Your task to perform on an android device: What's the weather going to be this weekend? Image 0: 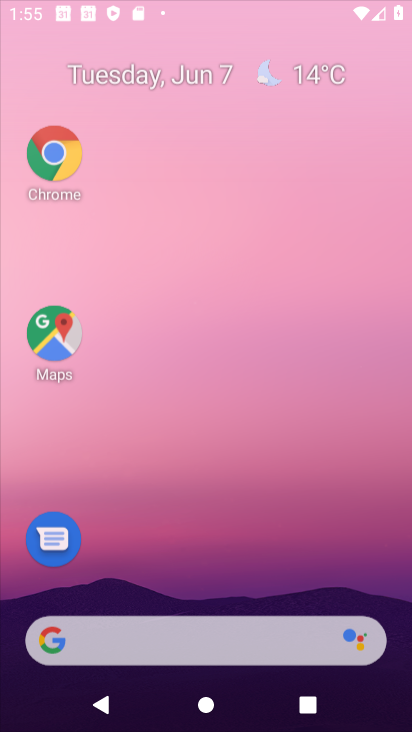
Step 0: click (366, 132)
Your task to perform on an android device: What's the weather going to be this weekend? Image 1: 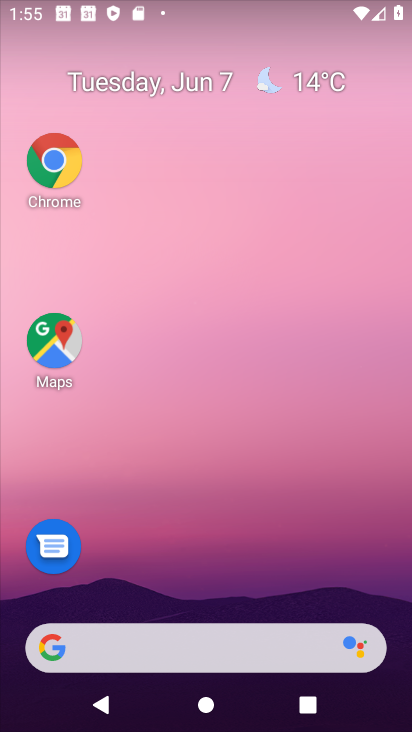
Step 1: drag from (201, 559) to (217, 190)
Your task to perform on an android device: What's the weather going to be this weekend? Image 2: 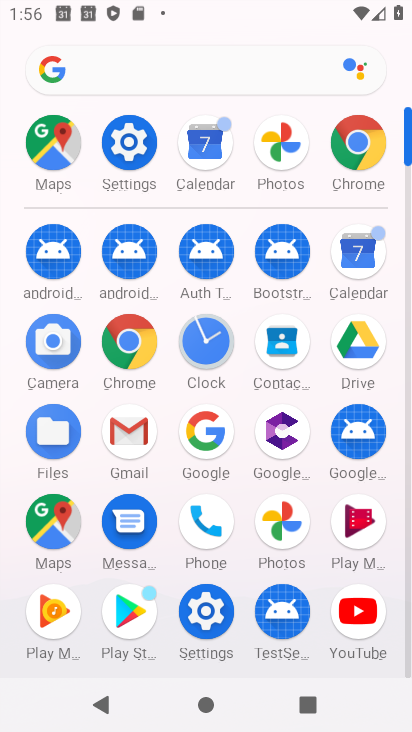
Step 2: click (148, 57)
Your task to perform on an android device: What's the weather going to be this weekend? Image 3: 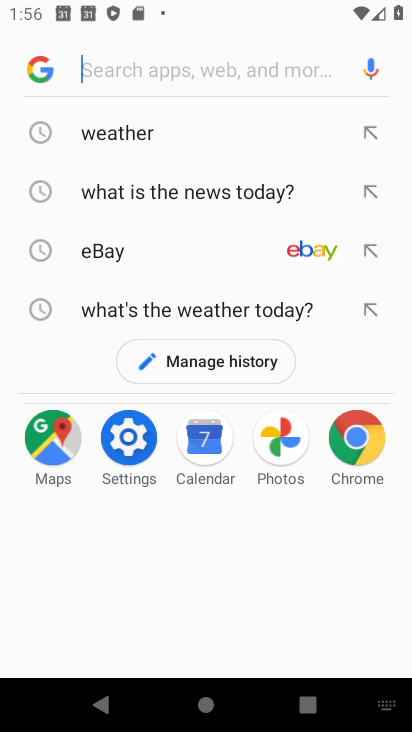
Step 3: type "weather going to be this weekend?"
Your task to perform on an android device: What's the weather going to be this weekend? Image 4: 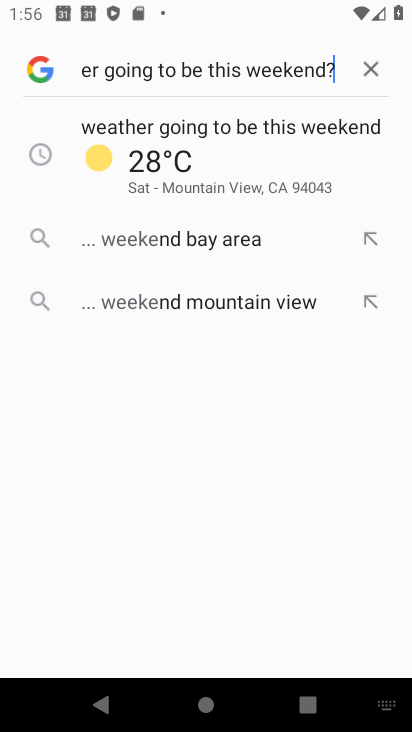
Step 4: type ""
Your task to perform on an android device: What's the weather going to be this weekend? Image 5: 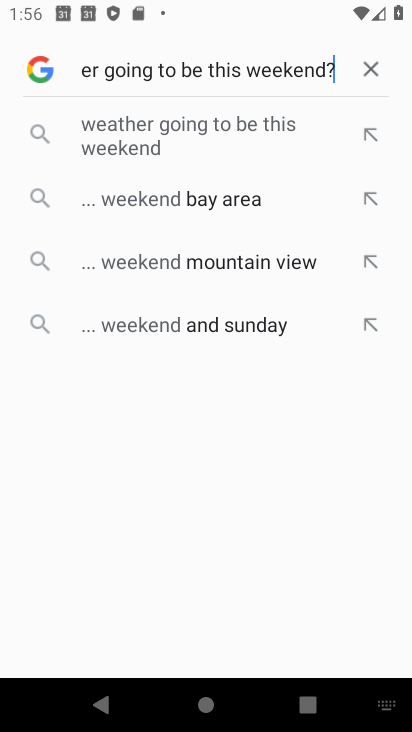
Step 5: click (146, 144)
Your task to perform on an android device: What's the weather going to be this weekend? Image 6: 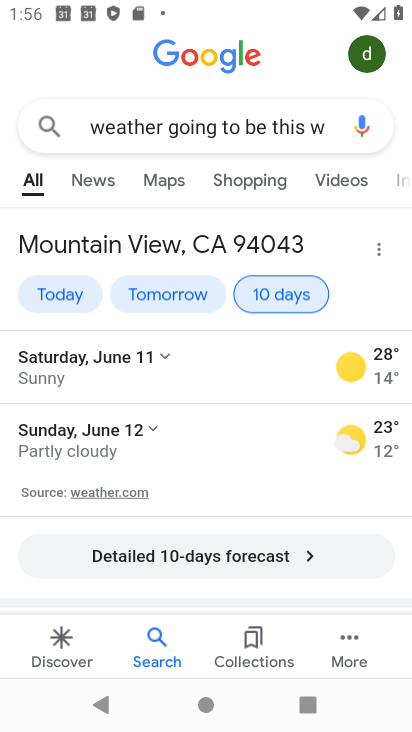
Step 6: task complete